Your task to perform on an android device: Go to Android settings Image 0: 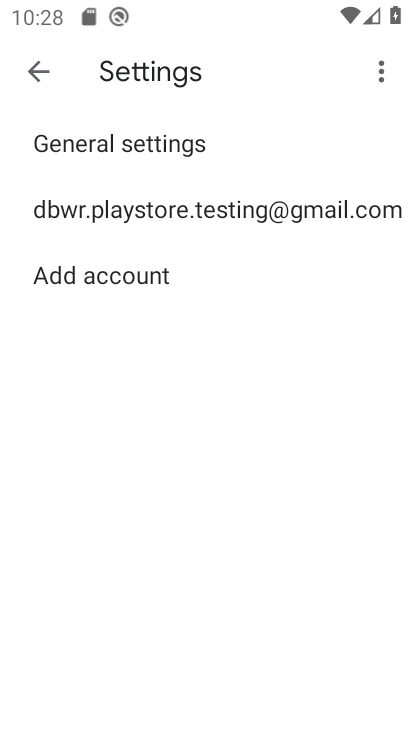
Step 0: press home button
Your task to perform on an android device: Go to Android settings Image 1: 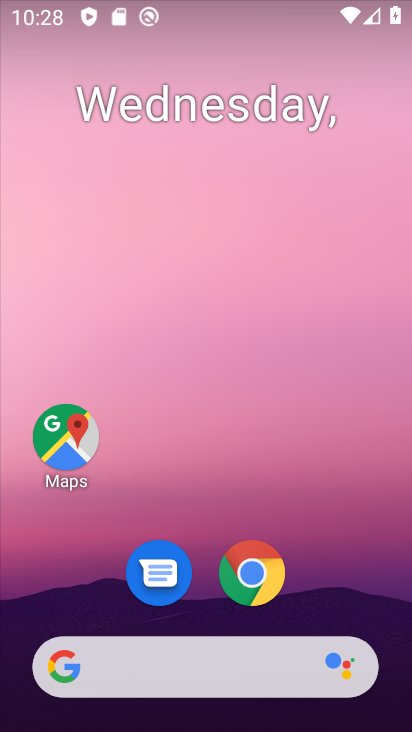
Step 1: drag from (188, 398) to (230, 30)
Your task to perform on an android device: Go to Android settings Image 2: 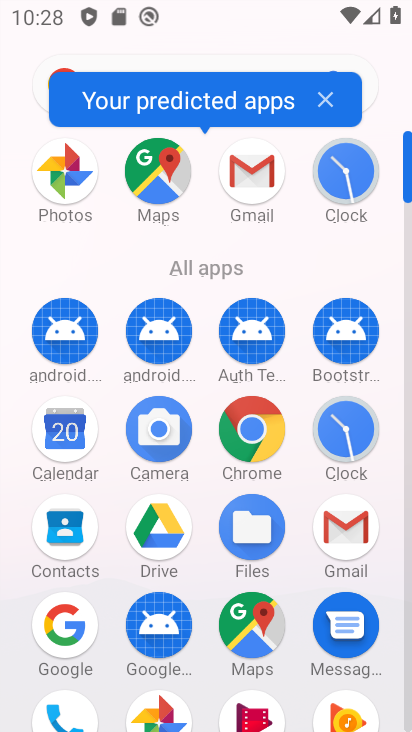
Step 2: drag from (296, 495) to (292, 112)
Your task to perform on an android device: Go to Android settings Image 3: 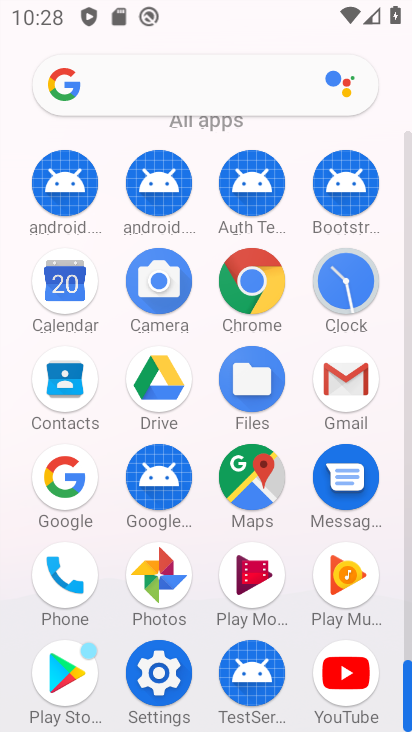
Step 3: click (160, 673)
Your task to perform on an android device: Go to Android settings Image 4: 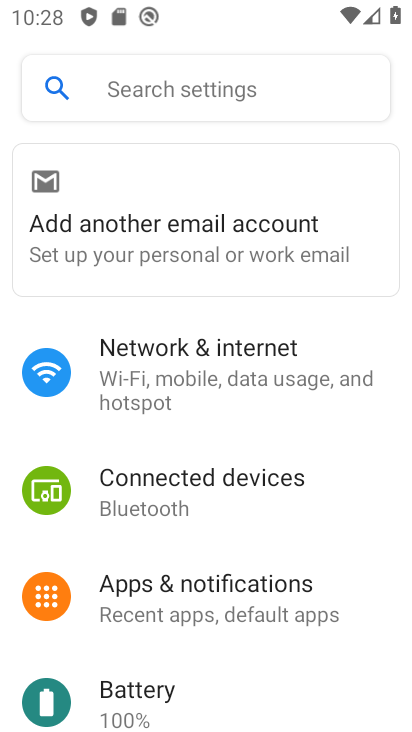
Step 4: task complete